Your task to perform on an android device: check android version Image 0: 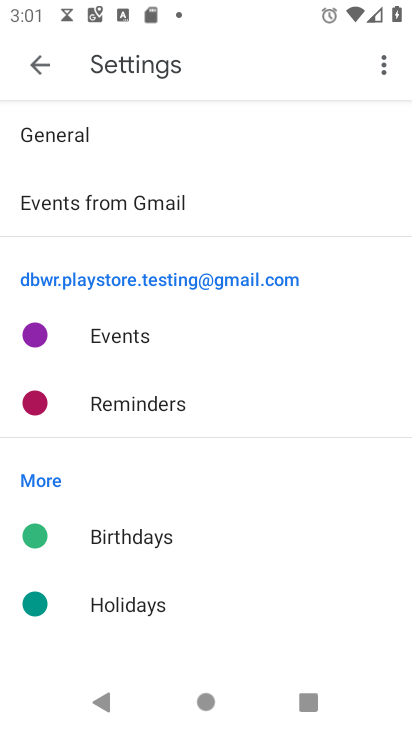
Step 0: press home button
Your task to perform on an android device: check android version Image 1: 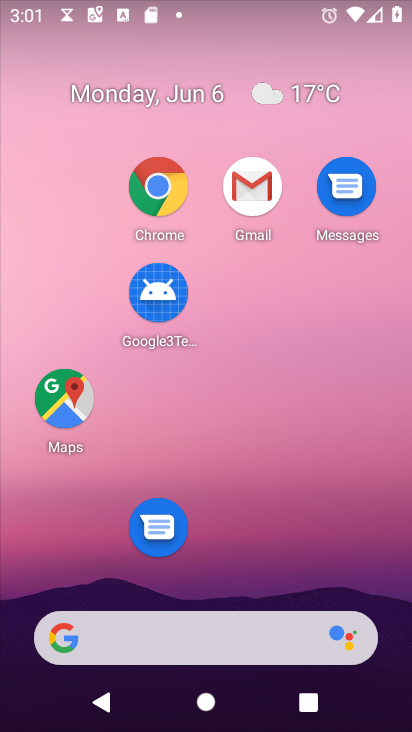
Step 1: drag from (298, 395) to (272, 35)
Your task to perform on an android device: check android version Image 2: 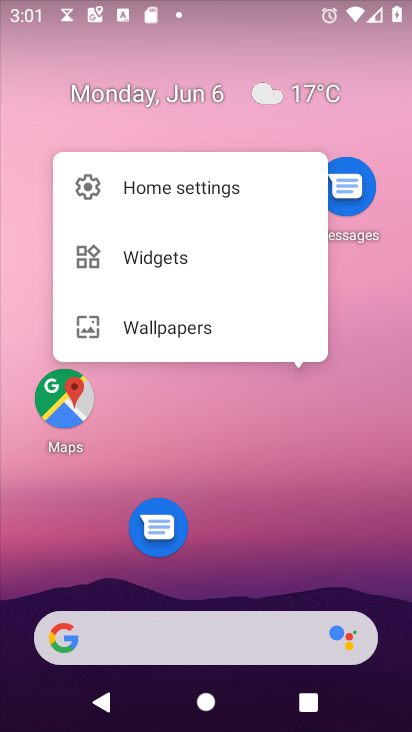
Step 2: click (331, 409)
Your task to perform on an android device: check android version Image 3: 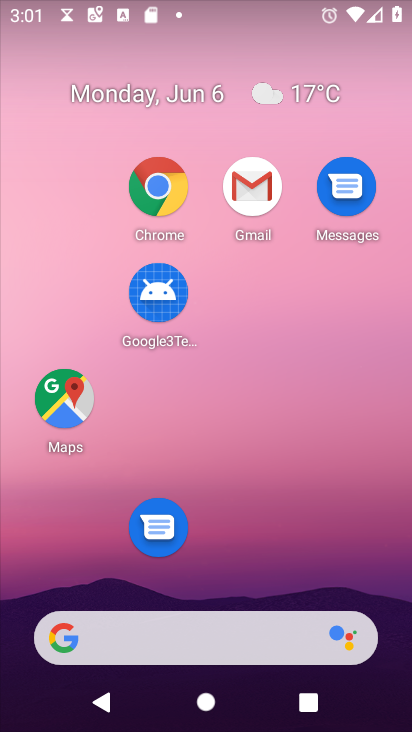
Step 3: drag from (317, 497) to (264, 14)
Your task to perform on an android device: check android version Image 4: 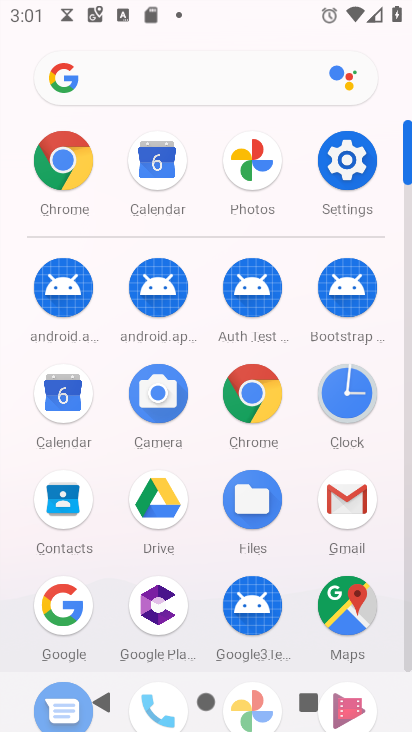
Step 4: click (348, 167)
Your task to perform on an android device: check android version Image 5: 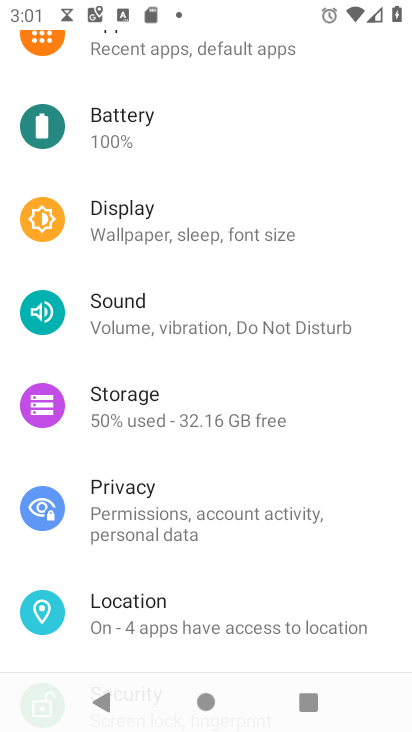
Step 5: drag from (396, 538) to (367, 258)
Your task to perform on an android device: check android version Image 6: 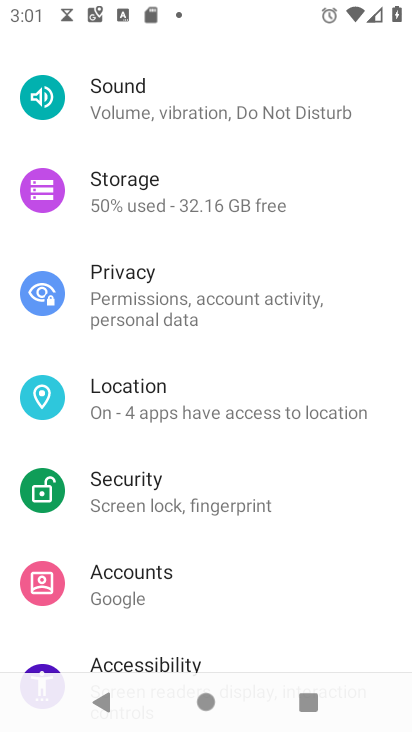
Step 6: drag from (355, 548) to (340, 184)
Your task to perform on an android device: check android version Image 7: 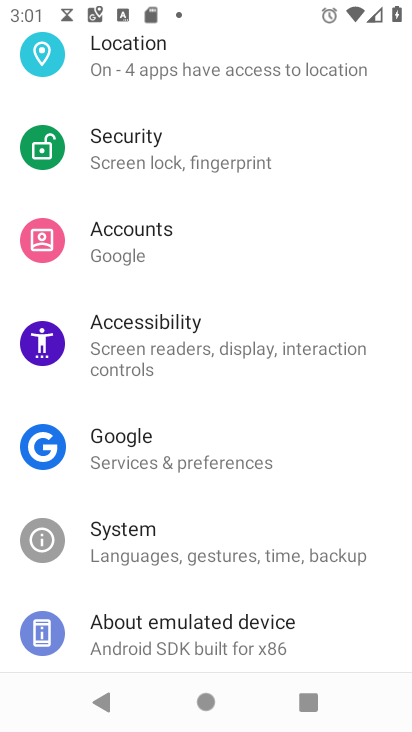
Step 7: click (221, 625)
Your task to perform on an android device: check android version Image 8: 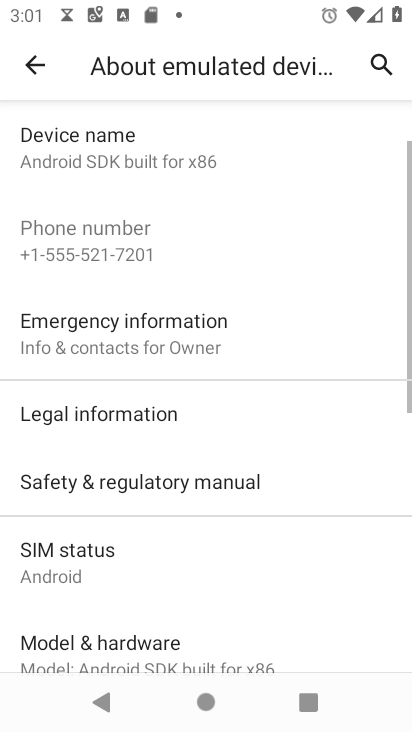
Step 8: drag from (314, 498) to (298, 256)
Your task to perform on an android device: check android version Image 9: 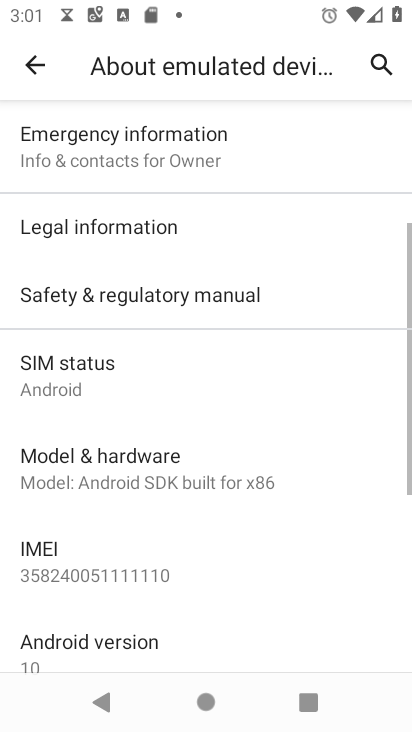
Step 9: click (121, 632)
Your task to perform on an android device: check android version Image 10: 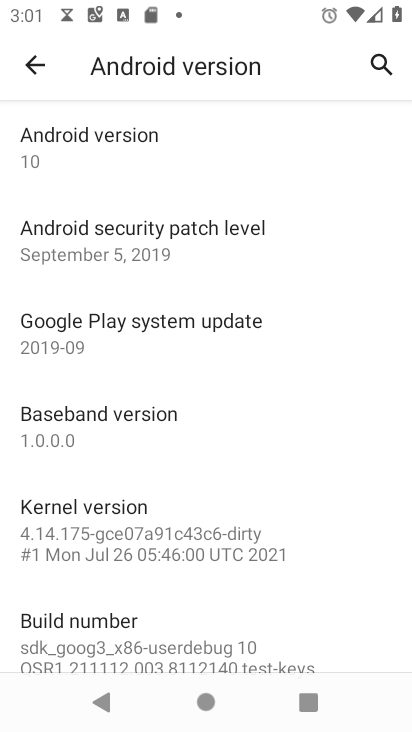
Step 10: click (238, 164)
Your task to perform on an android device: check android version Image 11: 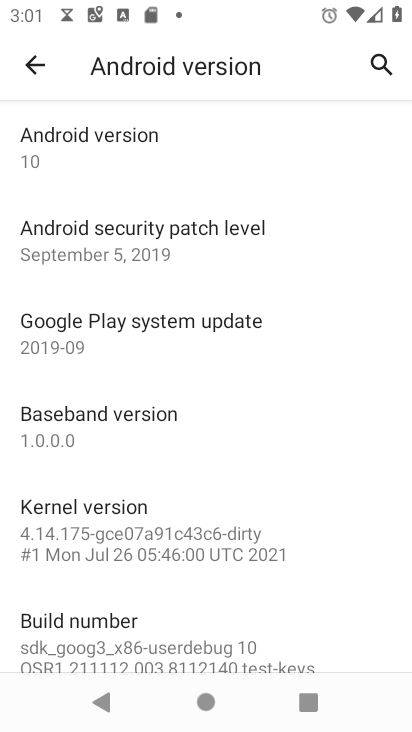
Step 11: task complete